Your task to perform on an android device: change your default location settings in chrome Image 0: 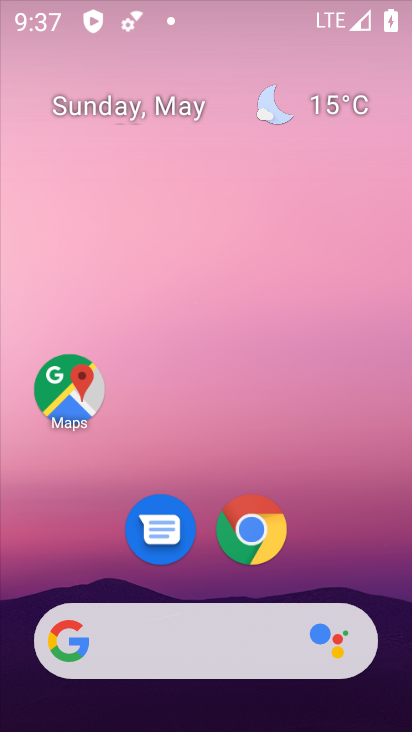
Step 0: drag from (301, 450) to (323, 169)
Your task to perform on an android device: change your default location settings in chrome Image 1: 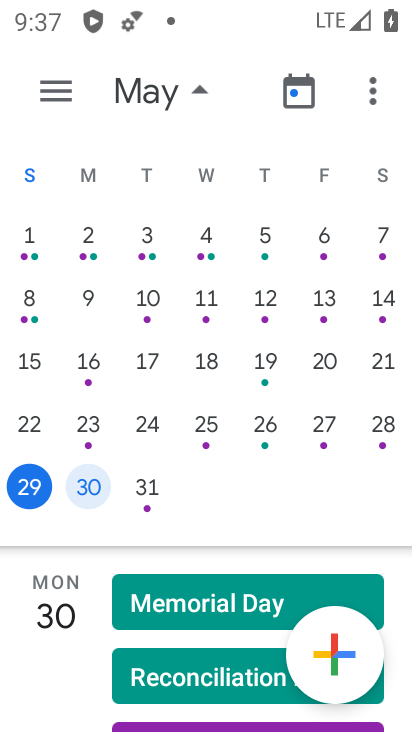
Step 1: press home button
Your task to perform on an android device: change your default location settings in chrome Image 2: 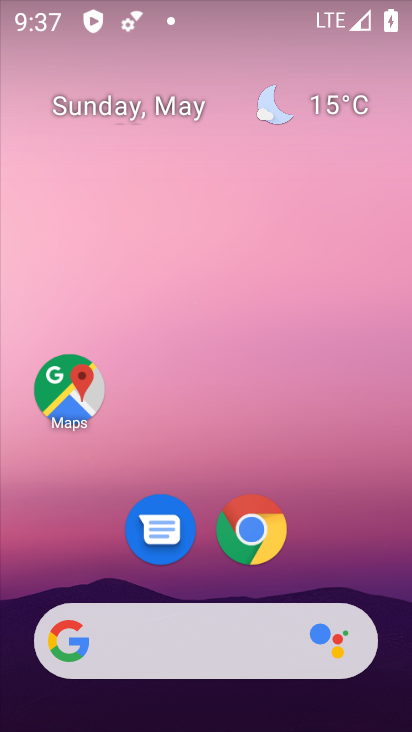
Step 2: drag from (292, 583) to (308, 70)
Your task to perform on an android device: change your default location settings in chrome Image 3: 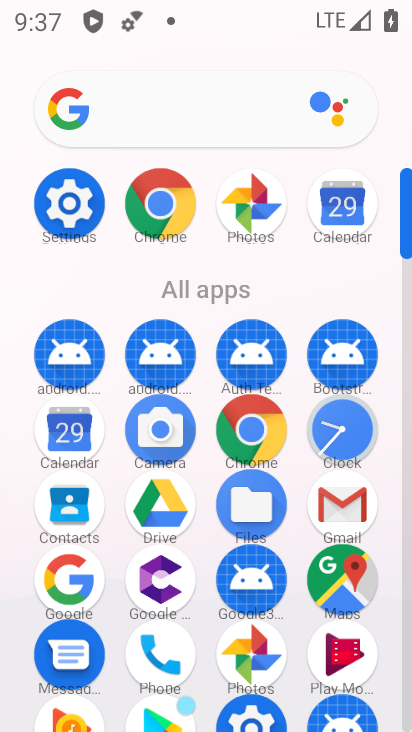
Step 3: click (254, 420)
Your task to perform on an android device: change your default location settings in chrome Image 4: 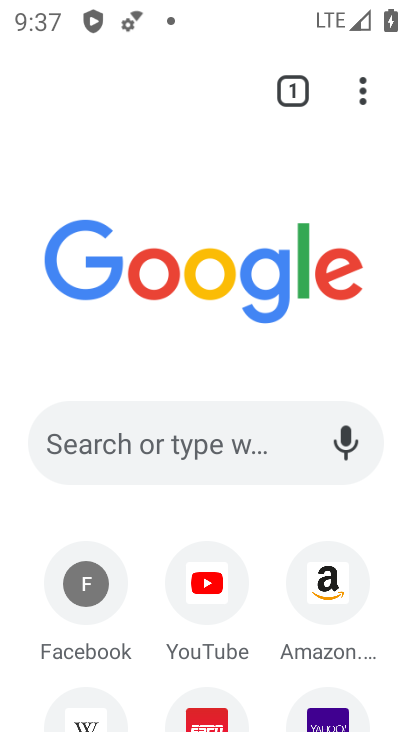
Step 4: click (361, 85)
Your task to perform on an android device: change your default location settings in chrome Image 5: 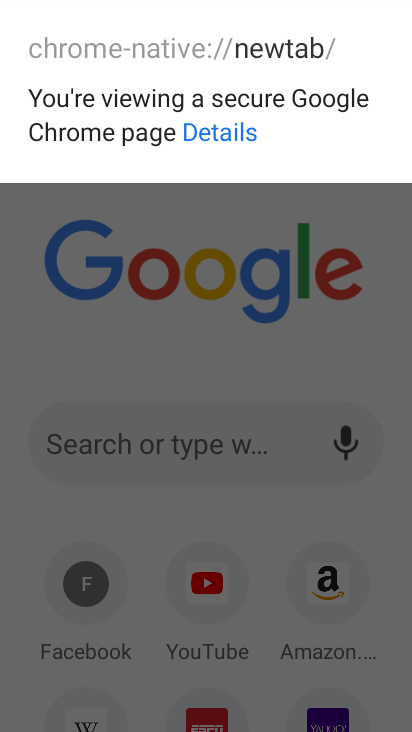
Step 5: click (350, 317)
Your task to perform on an android device: change your default location settings in chrome Image 6: 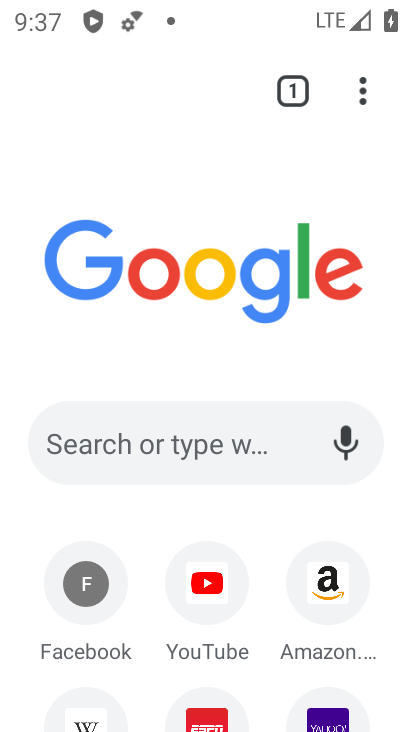
Step 6: click (377, 85)
Your task to perform on an android device: change your default location settings in chrome Image 7: 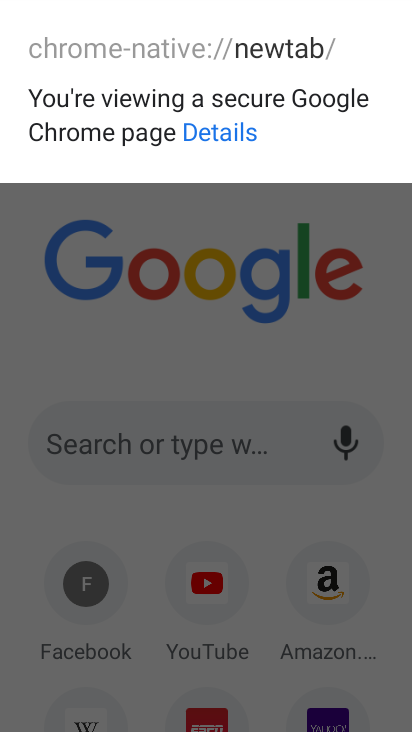
Step 7: click (287, 354)
Your task to perform on an android device: change your default location settings in chrome Image 8: 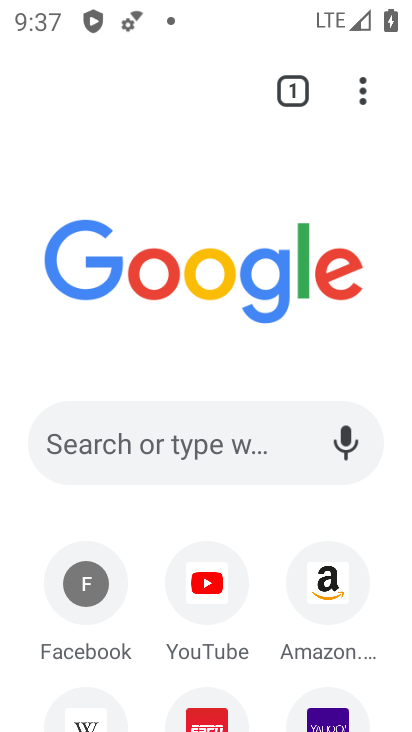
Step 8: drag from (364, 79) to (200, 553)
Your task to perform on an android device: change your default location settings in chrome Image 9: 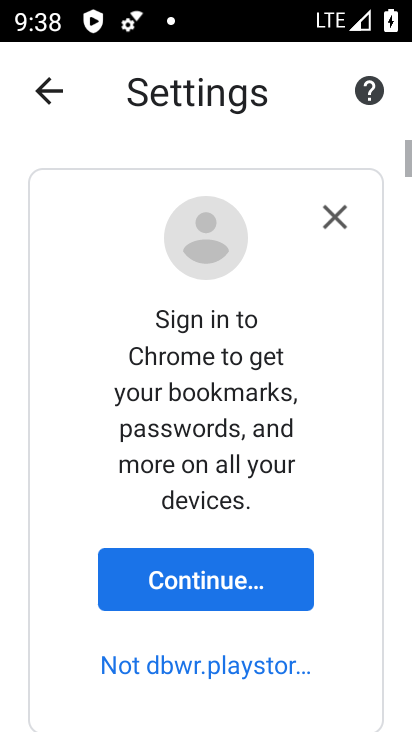
Step 9: drag from (236, 641) to (318, 19)
Your task to perform on an android device: change your default location settings in chrome Image 10: 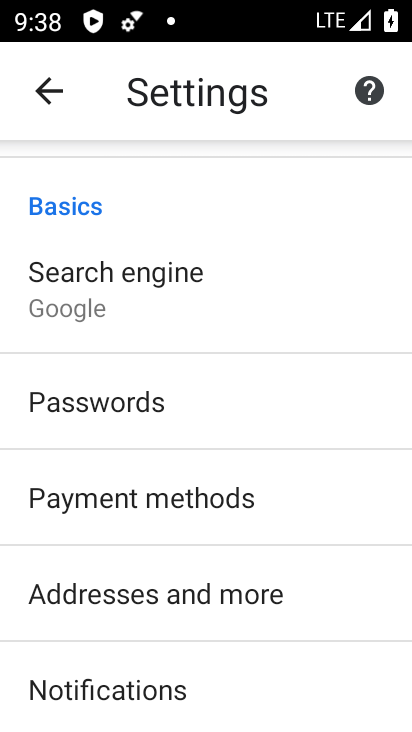
Step 10: drag from (215, 591) to (283, 61)
Your task to perform on an android device: change your default location settings in chrome Image 11: 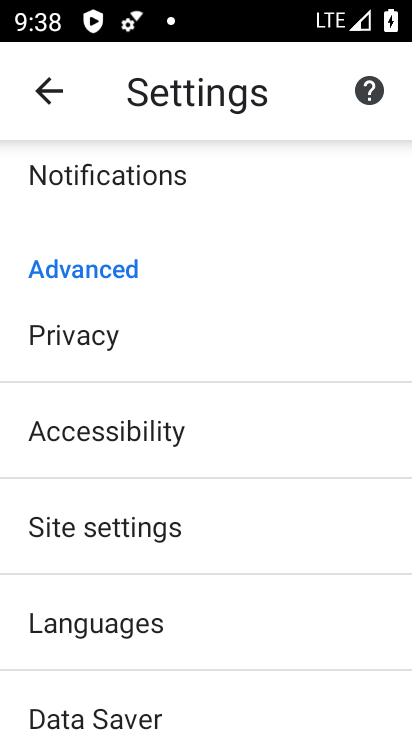
Step 11: click (165, 537)
Your task to perform on an android device: change your default location settings in chrome Image 12: 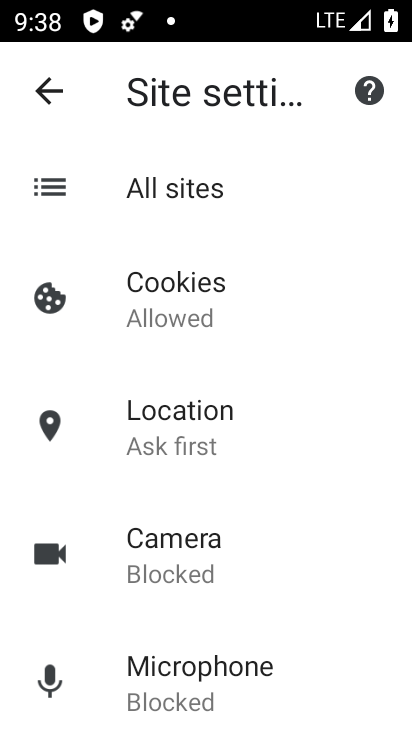
Step 12: drag from (262, 458) to (310, 172)
Your task to perform on an android device: change your default location settings in chrome Image 13: 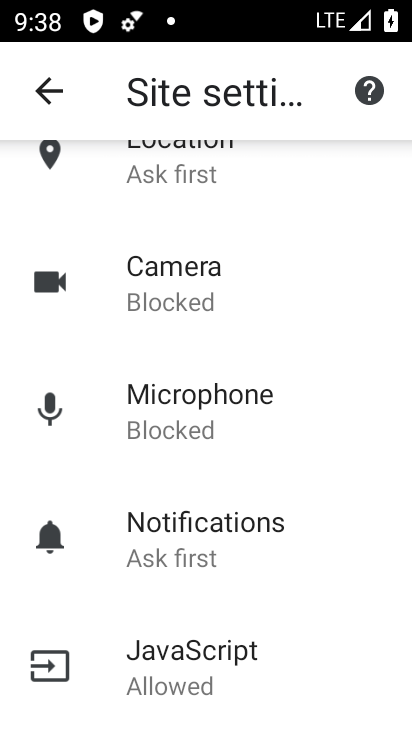
Step 13: click (237, 160)
Your task to perform on an android device: change your default location settings in chrome Image 14: 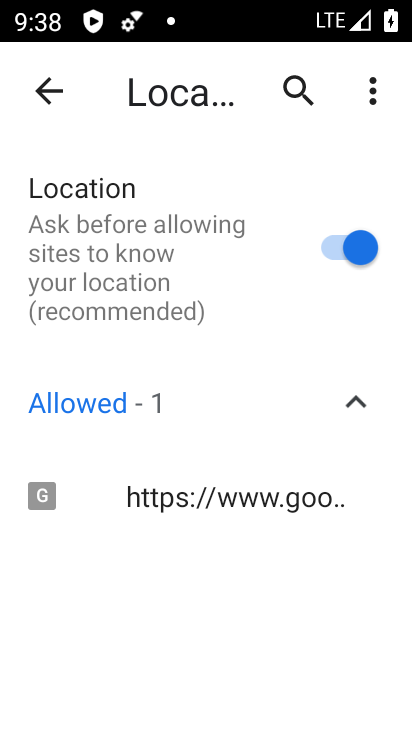
Step 14: click (242, 537)
Your task to perform on an android device: change your default location settings in chrome Image 15: 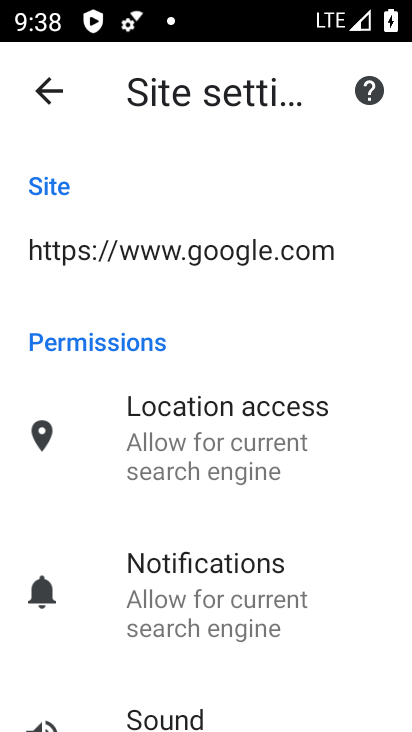
Step 15: task complete